Your task to perform on an android device: Open Google Maps Image 0: 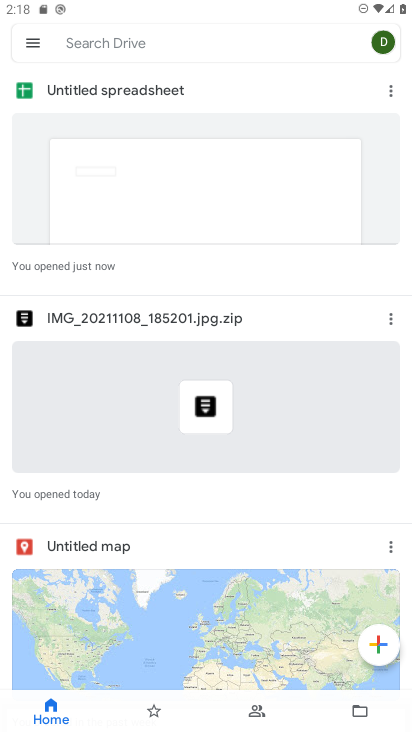
Step 0: click (143, 547)
Your task to perform on an android device: Open Google Maps Image 1: 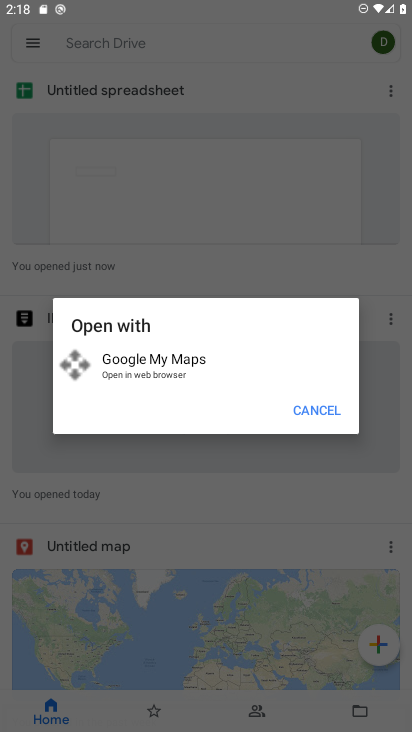
Step 1: click (332, 412)
Your task to perform on an android device: Open Google Maps Image 2: 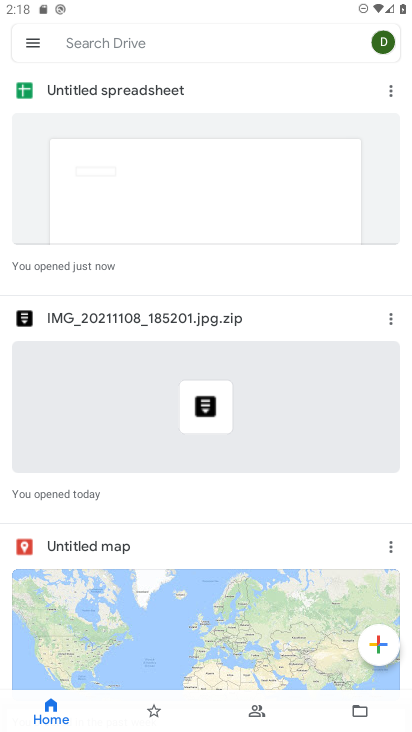
Step 2: click (392, 318)
Your task to perform on an android device: Open Google Maps Image 3: 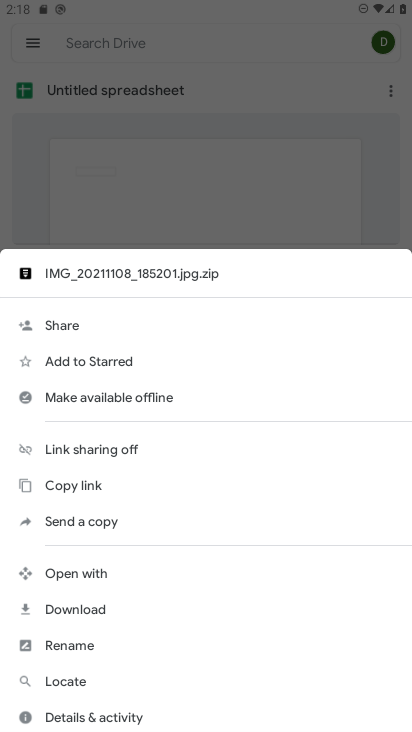
Step 3: press home button
Your task to perform on an android device: Open Google Maps Image 4: 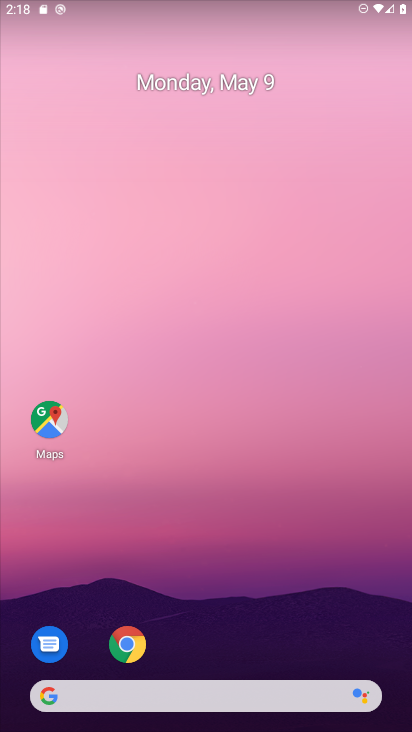
Step 4: click (58, 423)
Your task to perform on an android device: Open Google Maps Image 5: 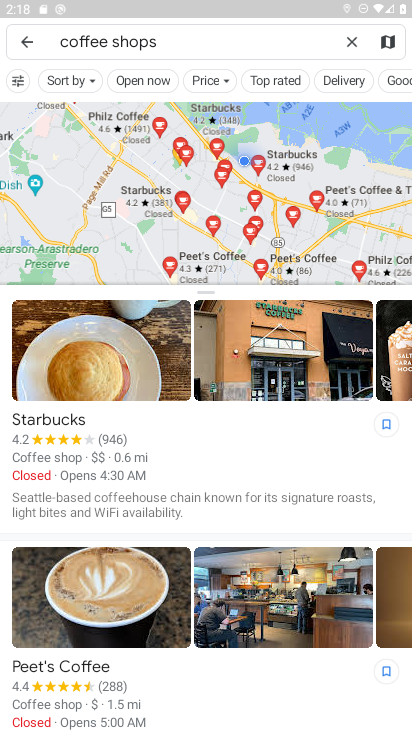
Step 5: task complete